Your task to perform on an android device: change the clock display to show seconds Image 0: 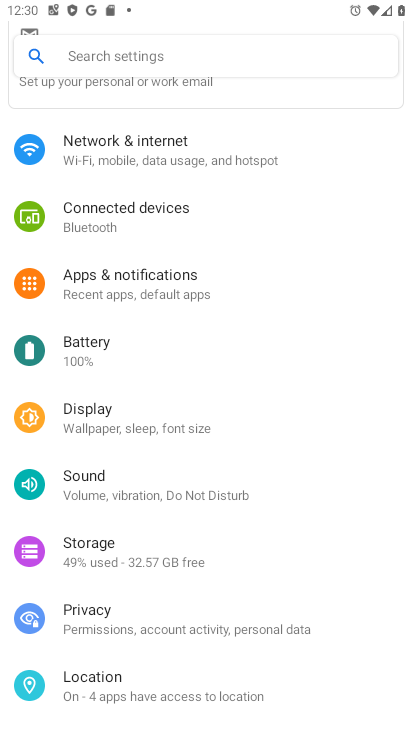
Step 0: press home button
Your task to perform on an android device: change the clock display to show seconds Image 1: 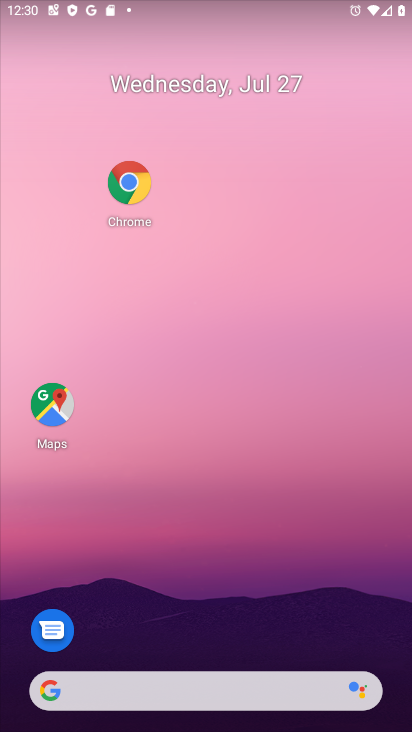
Step 1: drag from (145, 693) to (210, 93)
Your task to perform on an android device: change the clock display to show seconds Image 2: 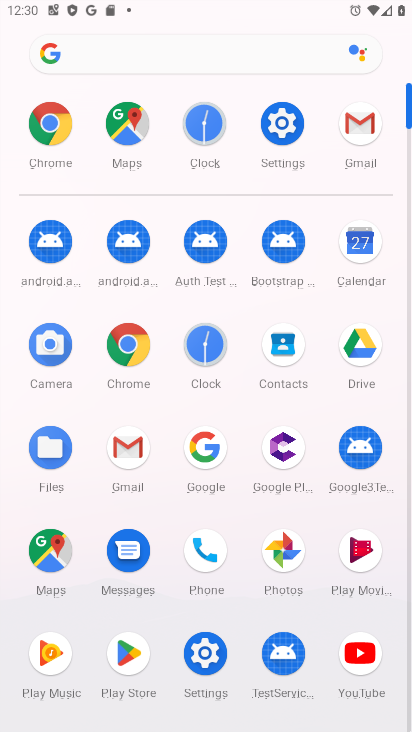
Step 2: click (201, 353)
Your task to perform on an android device: change the clock display to show seconds Image 3: 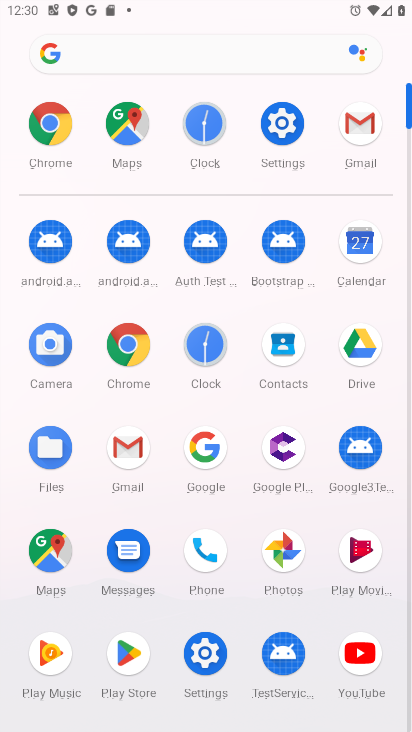
Step 3: click (201, 353)
Your task to perform on an android device: change the clock display to show seconds Image 4: 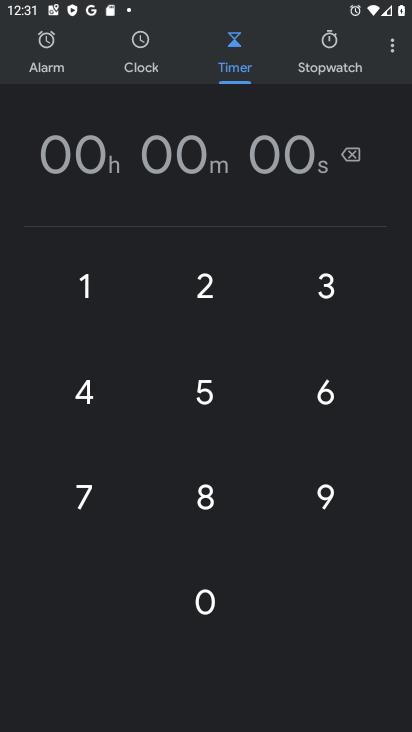
Step 4: click (395, 50)
Your task to perform on an android device: change the clock display to show seconds Image 5: 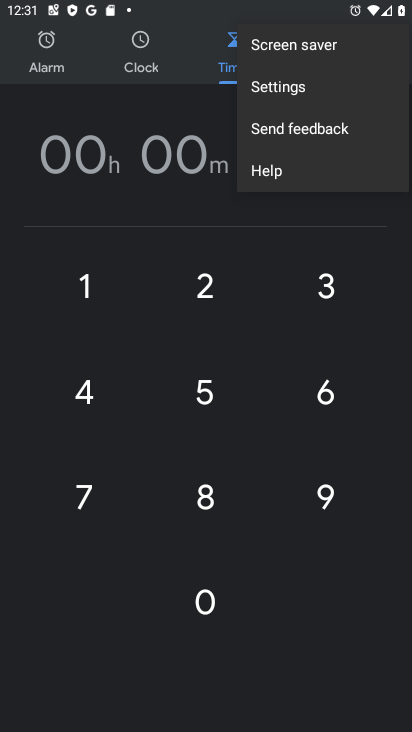
Step 5: click (353, 95)
Your task to perform on an android device: change the clock display to show seconds Image 6: 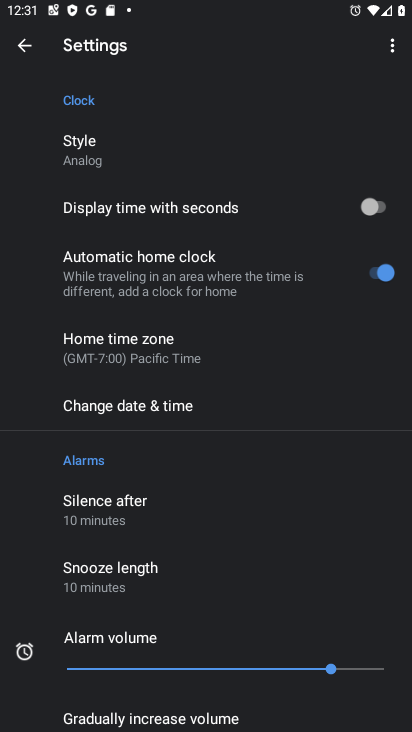
Step 6: task complete